Your task to perform on an android device: toggle notifications settings in the gmail app Image 0: 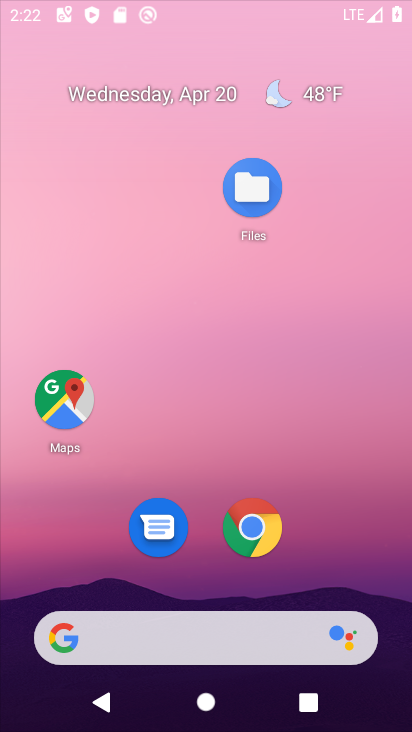
Step 0: click (245, 524)
Your task to perform on an android device: toggle notifications settings in the gmail app Image 1: 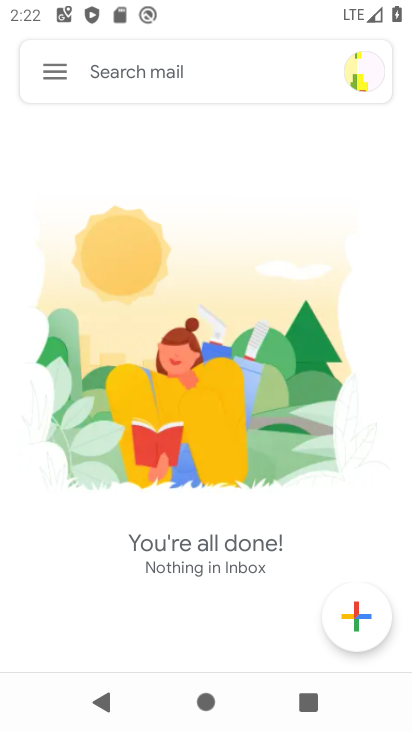
Step 1: click (44, 80)
Your task to perform on an android device: toggle notifications settings in the gmail app Image 2: 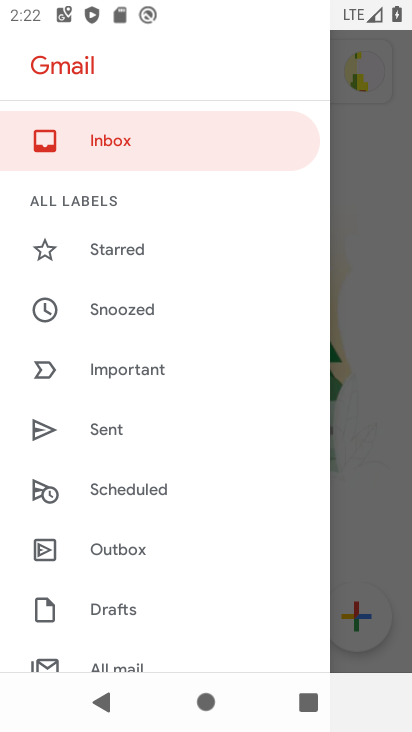
Step 2: drag from (73, 641) to (224, 102)
Your task to perform on an android device: toggle notifications settings in the gmail app Image 3: 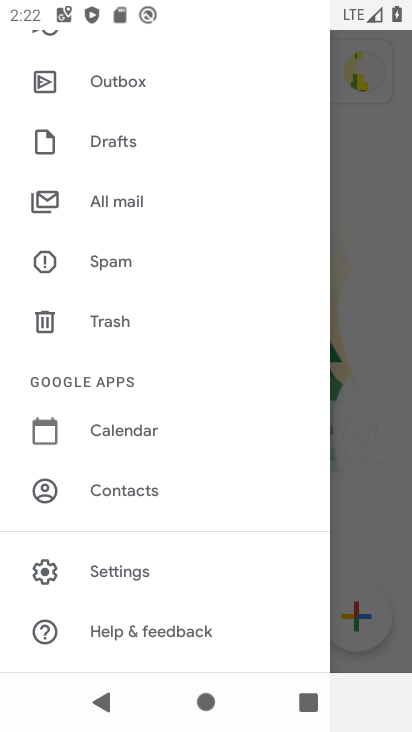
Step 3: click (131, 585)
Your task to perform on an android device: toggle notifications settings in the gmail app Image 4: 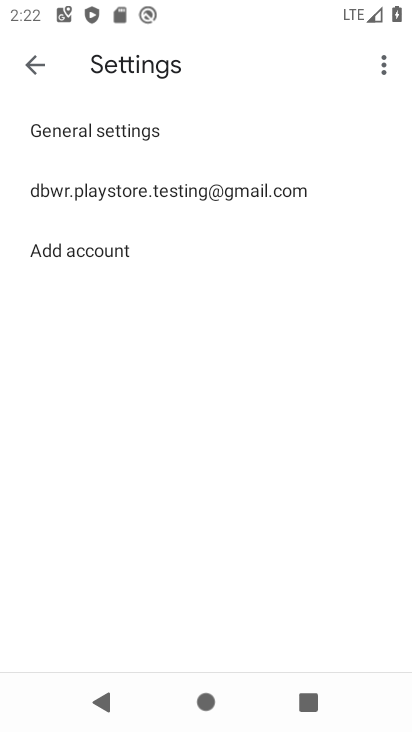
Step 4: click (127, 184)
Your task to perform on an android device: toggle notifications settings in the gmail app Image 5: 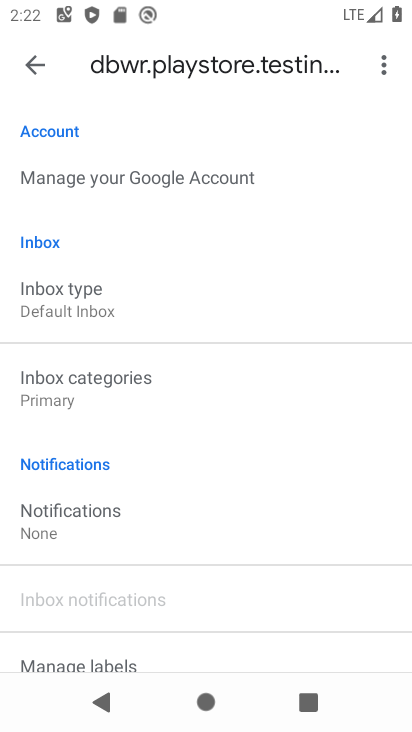
Step 5: click (35, 538)
Your task to perform on an android device: toggle notifications settings in the gmail app Image 6: 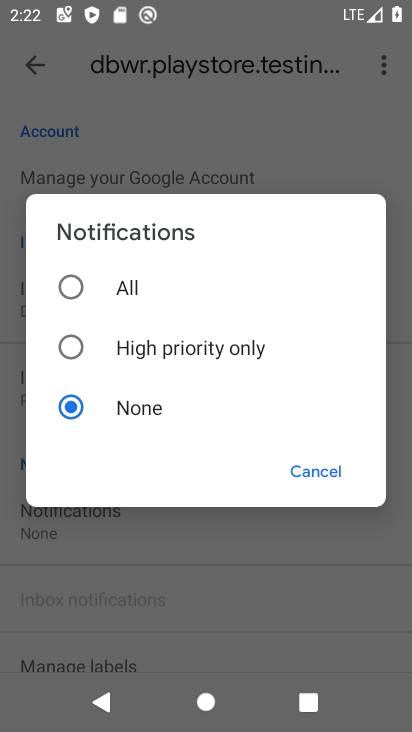
Step 6: click (170, 360)
Your task to perform on an android device: toggle notifications settings in the gmail app Image 7: 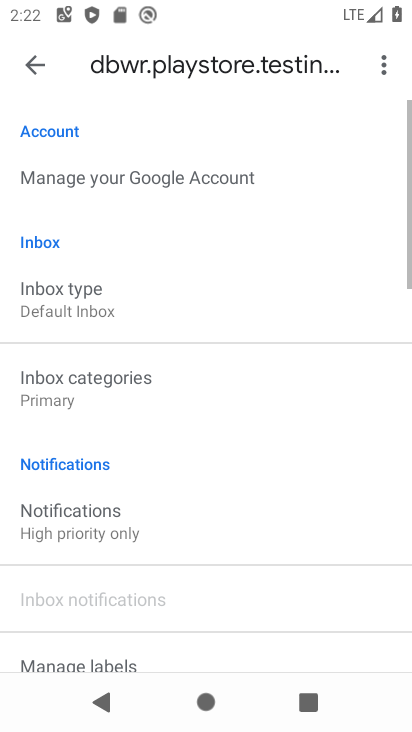
Step 7: task complete